Your task to perform on an android device: Find coffee shops on Maps Image 0: 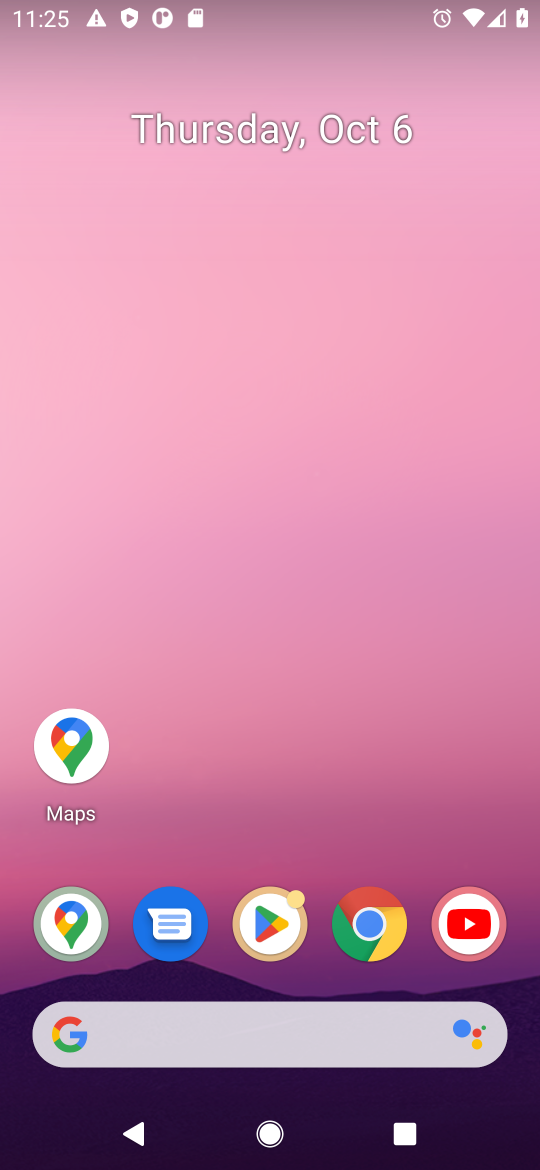
Step 0: click (78, 741)
Your task to perform on an android device: Find coffee shops on Maps Image 1: 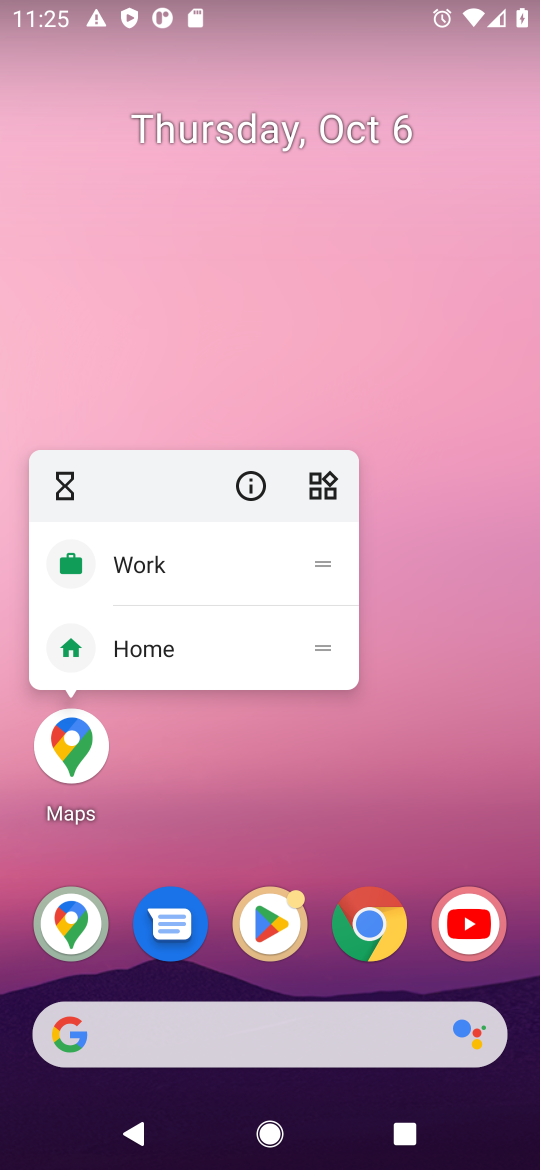
Step 1: click (78, 750)
Your task to perform on an android device: Find coffee shops on Maps Image 2: 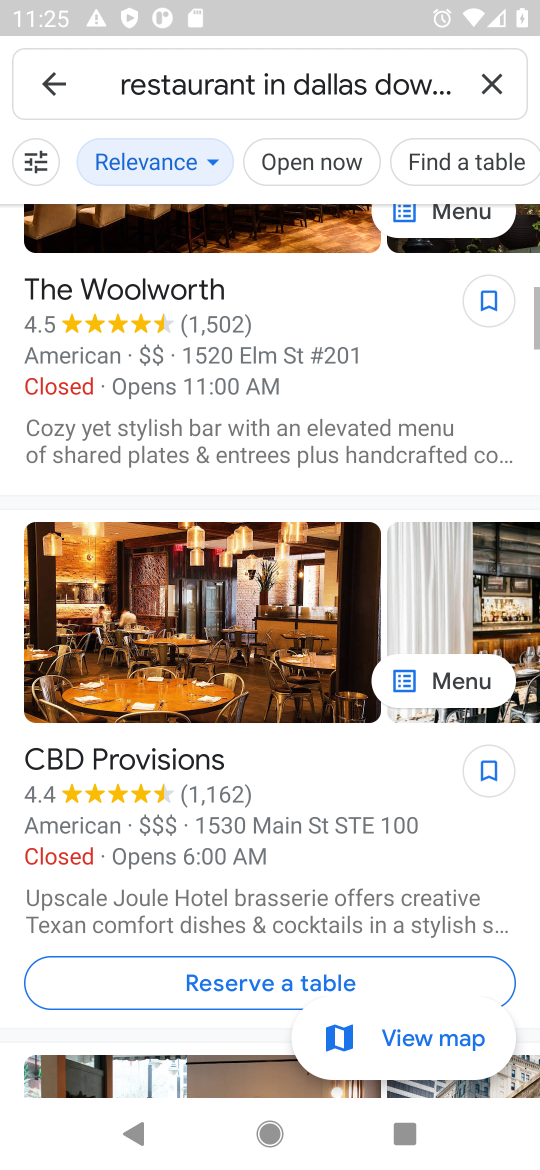
Step 2: click (492, 75)
Your task to perform on an android device: Find coffee shops on Maps Image 3: 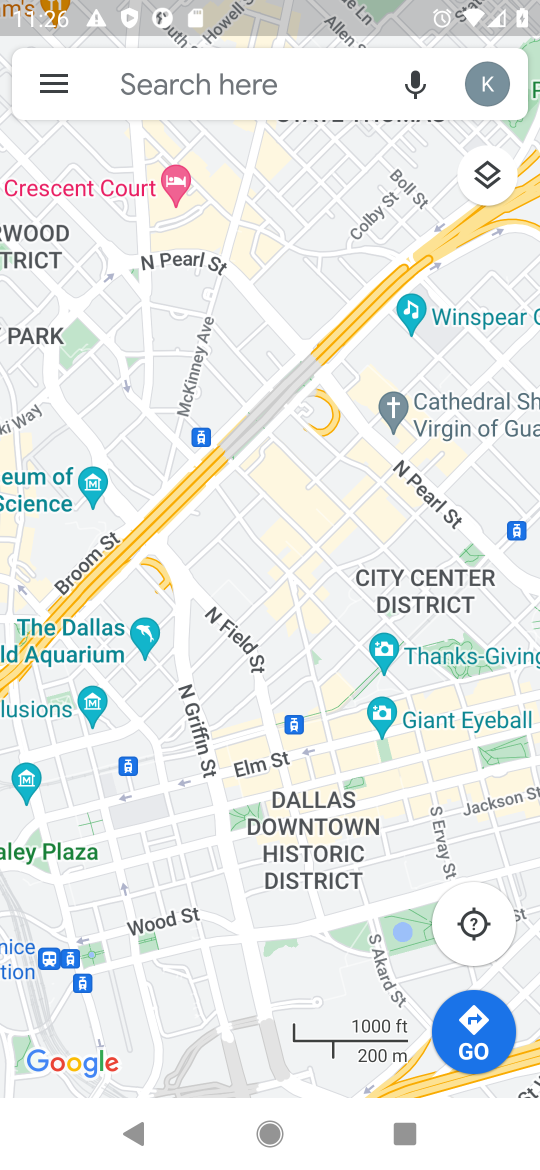
Step 3: click (268, 76)
Your task to perform on an android device: Find coffee shops on Maps Image 4: 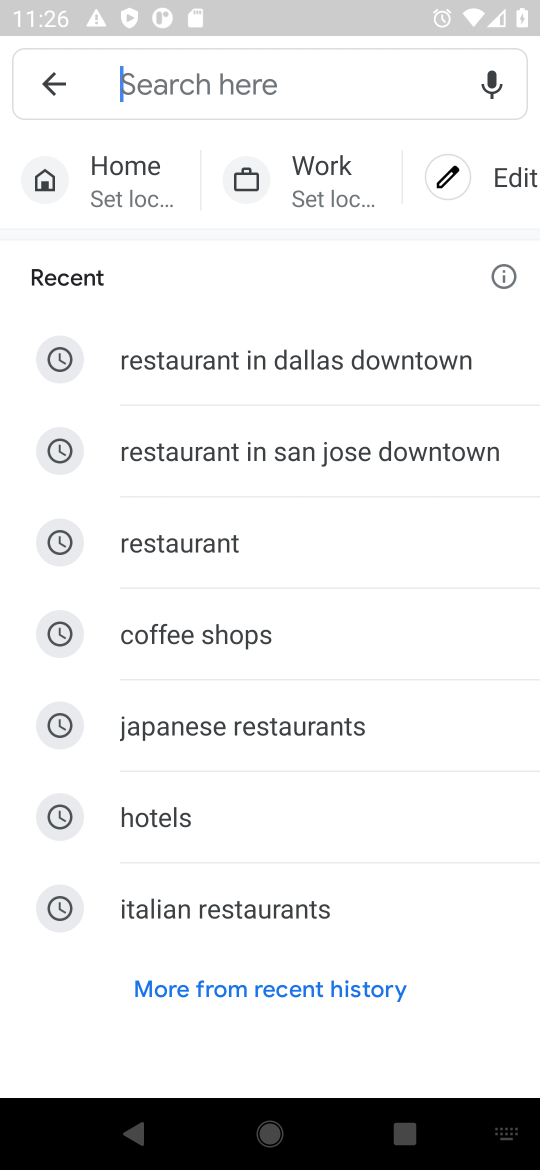
Step 4: type "coffee shops "
Your task to perform on an android device: Find coffee shops on Maps Image 5: 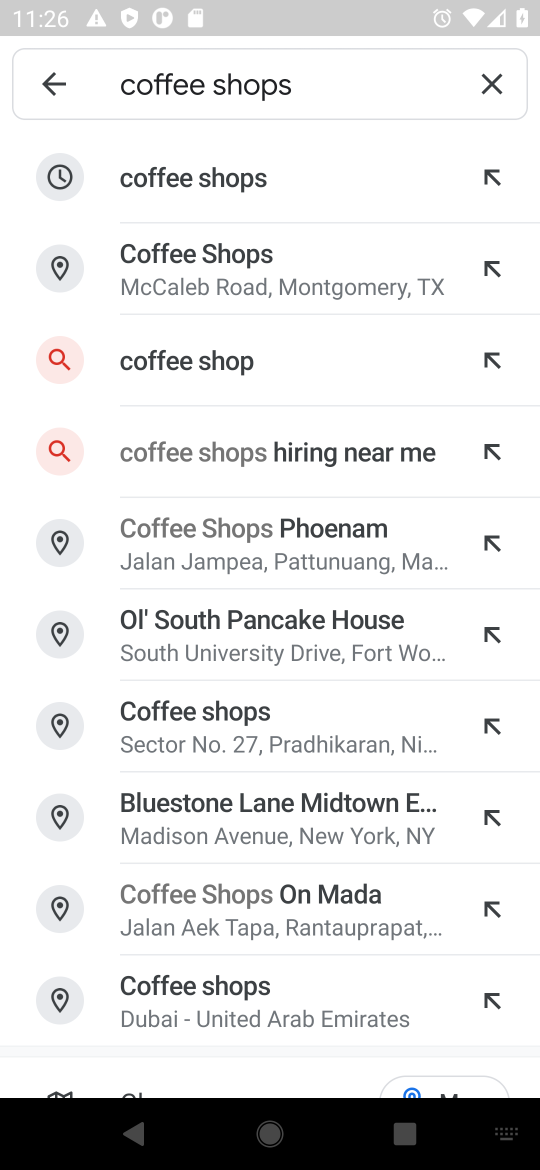
Step 5: click (212, 173)
Your task to perform on an android device: Find coffee shops on Maps Image 6: 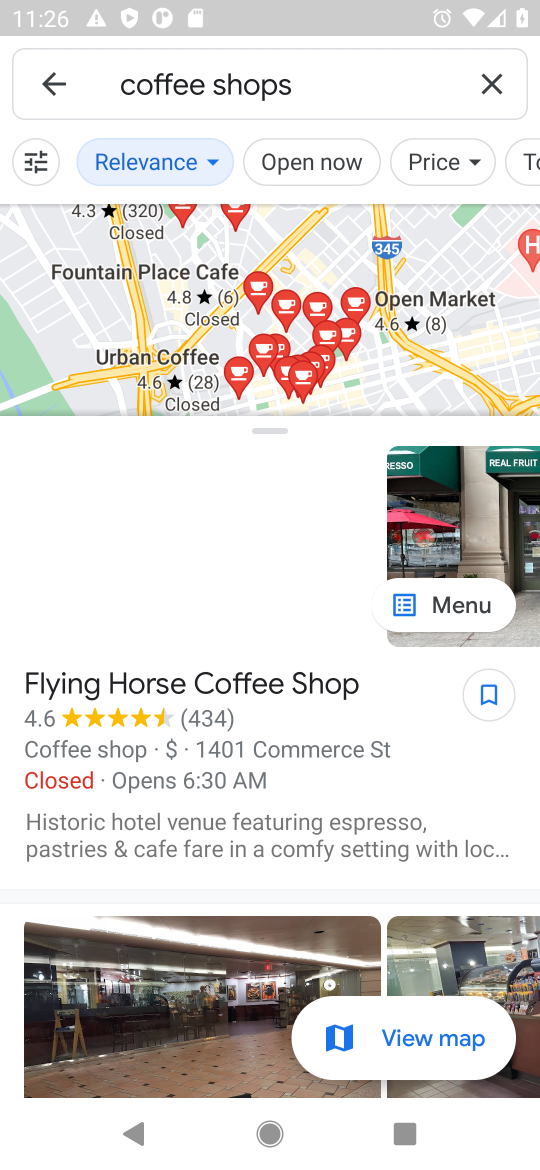
Step 6: task complete